Your task to perform on an android device: move a message to another label in the gmail app Image 0: 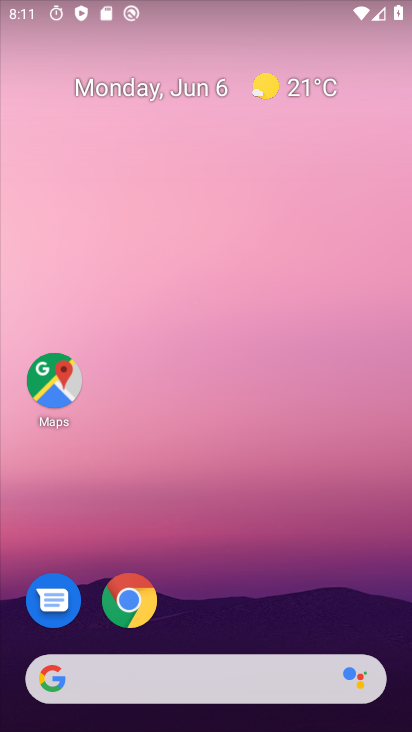
Step 0: drag from (210, 506) to (143, 26)
Your task to perform on an android device: move a message to another label in the gmail app Image 1: 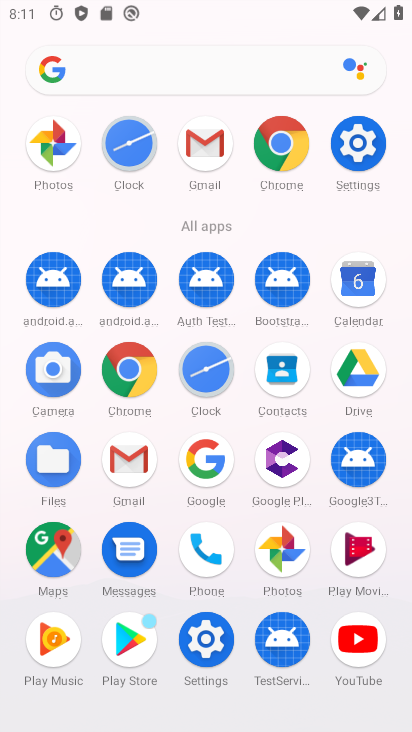
Step 1: click (127, 451)
Your task to perform on an android device: move a message to another label in the gmail app Image 2: 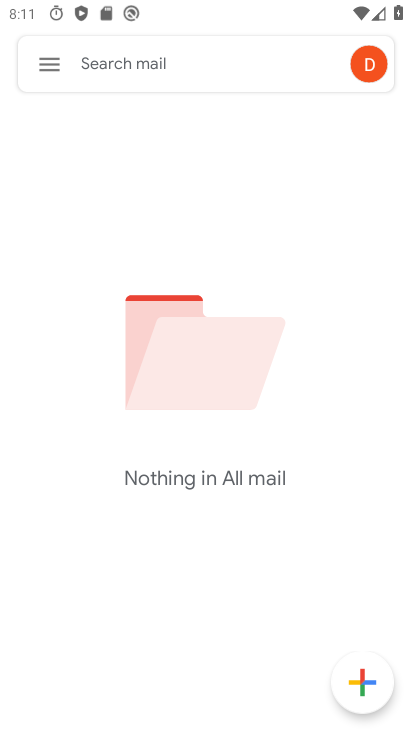
Step 2: click (63, 59)
Your task to perform on an android device: move a message to another label in the gmail app Image 3: 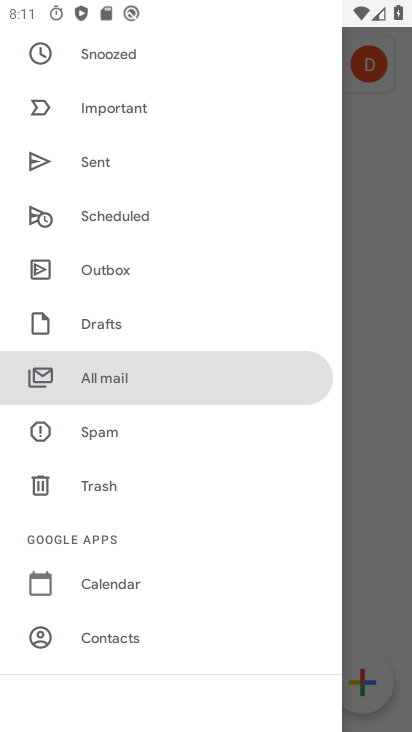
Step 3: drag from (236, 558) to (255, 124)
Your task to perform on an android device: move a message to another label in the gmail app Image 4: 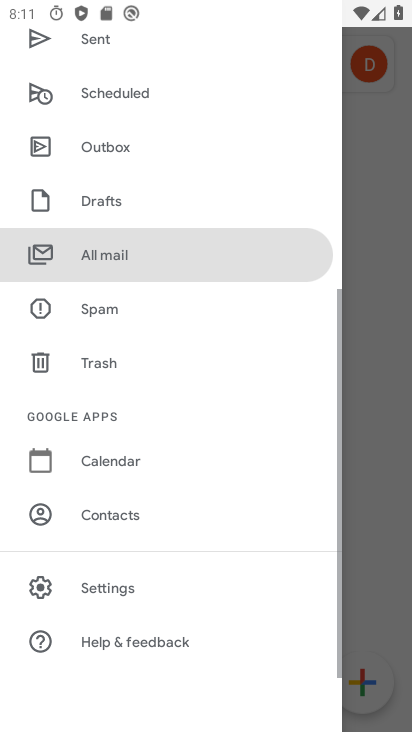
Step 4: drag from (246, 149) to (210, 655)
Your task to perform on an android device: move a message to another label in the gmail app Image 5: 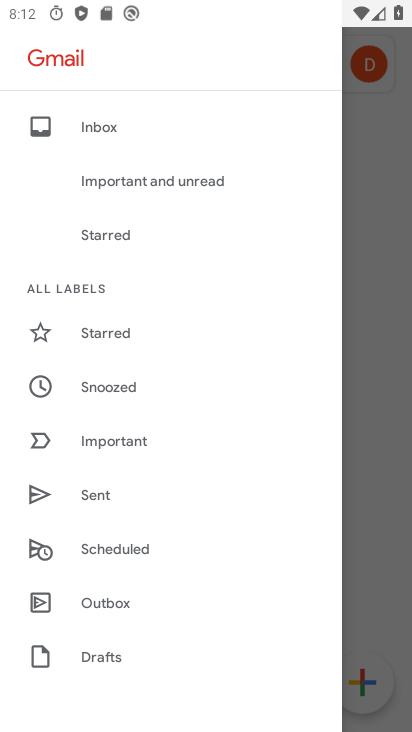
Step 5: click (135, 119)
Your task to perform on an android device: move a message to another label in the gmail app Image 6: 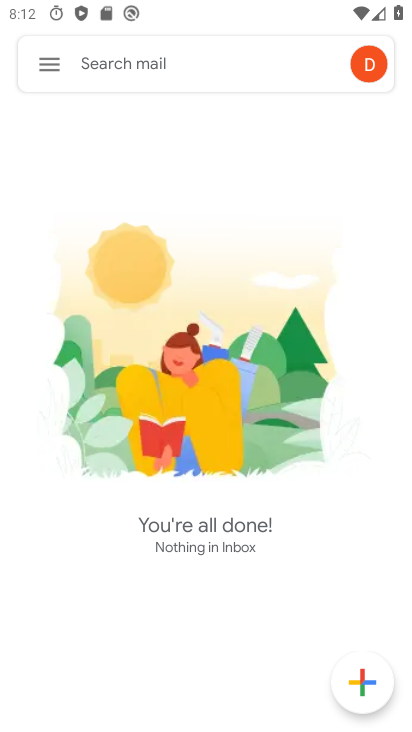
Step 6: task complete